Your task to perform on an android device: install app "Expedia: Hotels, Flights & Car" Image 0: 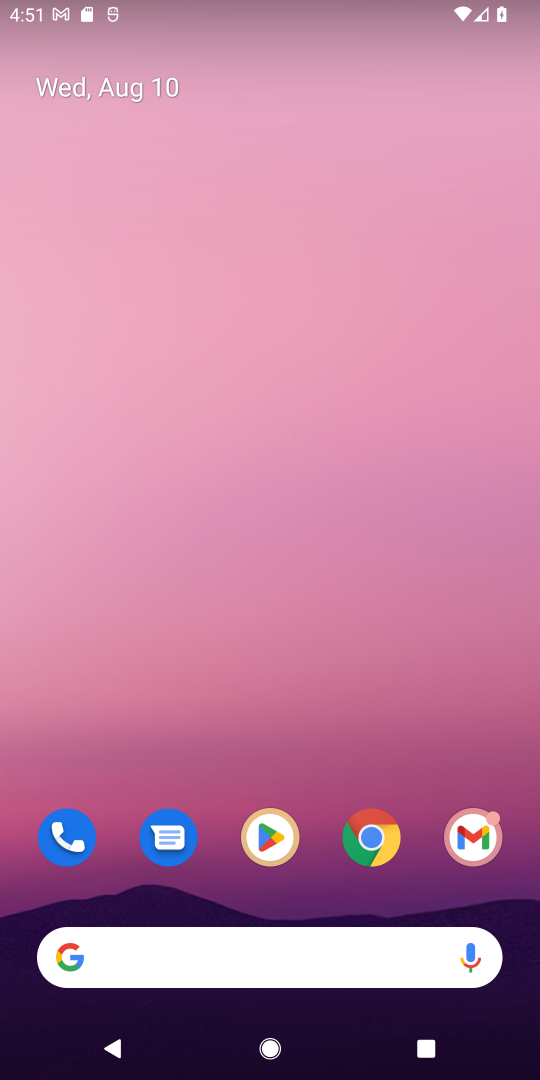
Step 0: press home button
Your task to perform on an android device: install app "Expedia: Hotels, Flights & Car" Image 1: 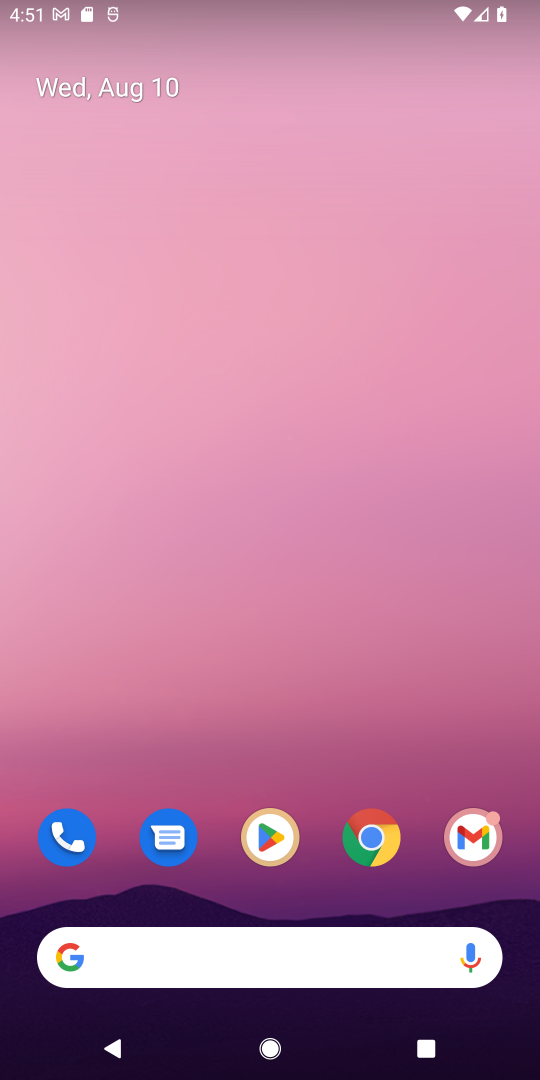
Step 1: click (261, 827)
Your task to perform on an android device: install app "Expedia: Hotels, Flights & Car" Image 2: 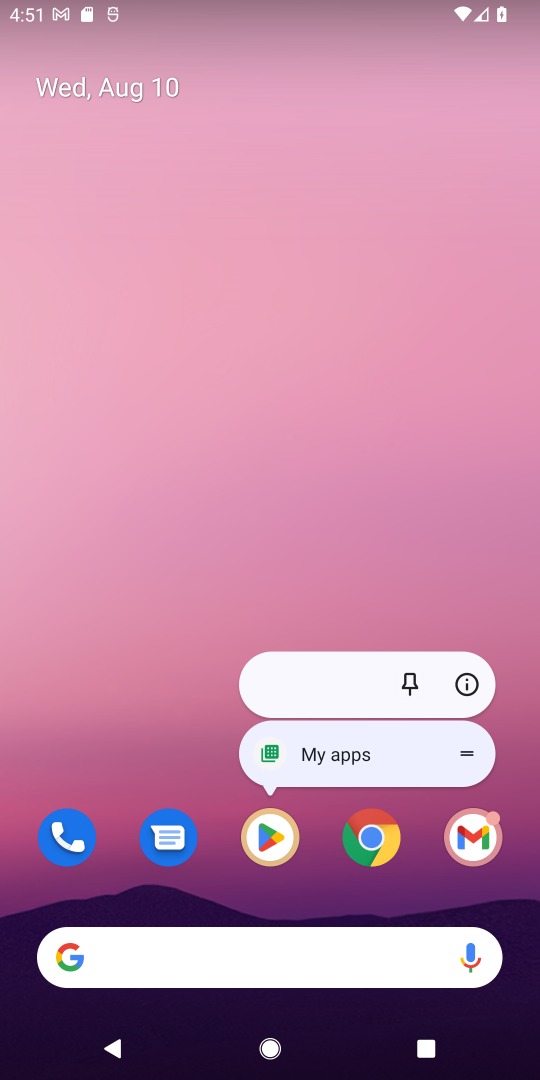
Step 2: click (269, 825)
Your task to perform on an android device: install app "Expedia: Hotels, Flights & Car" Image 3: 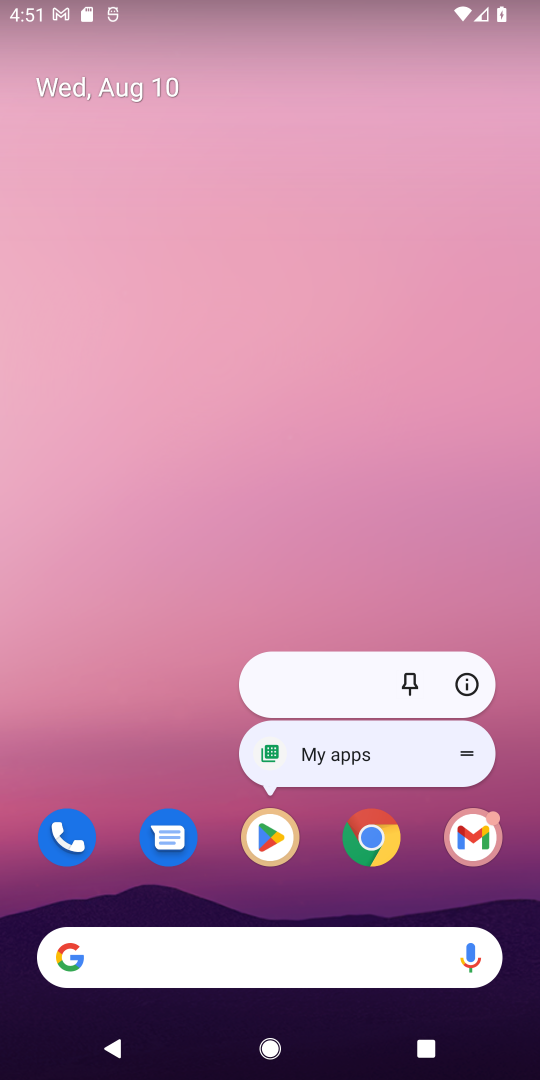
Step 3: click (269, 831)
Your task to perform on an android device: install app "Expedia: Hotels, Flights & Car" Image 4: 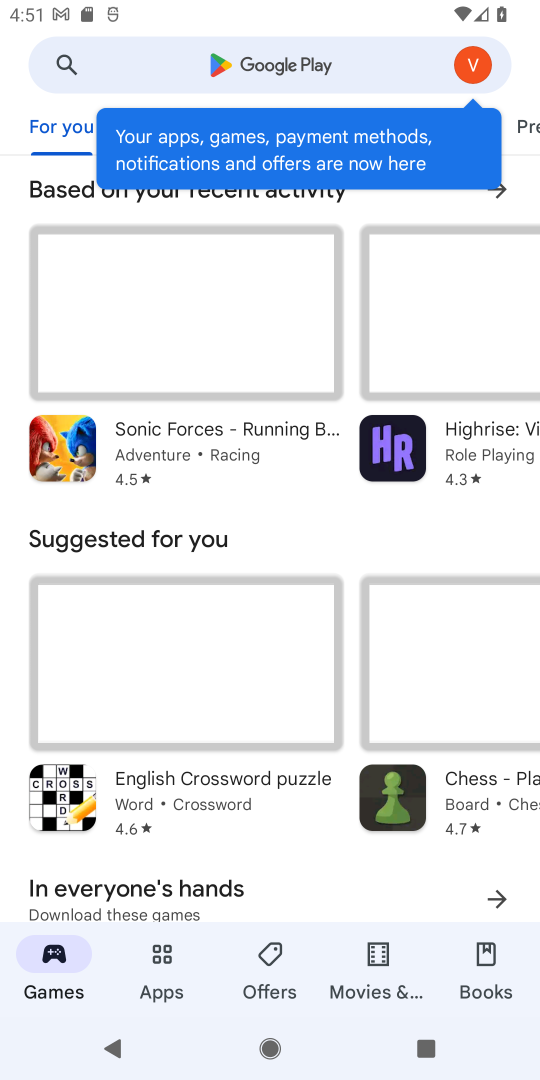
Step 4: click (300, 55)
Your task to perform on an android device: install app "Expedia: Hotels, Flights & Car" Image 5: 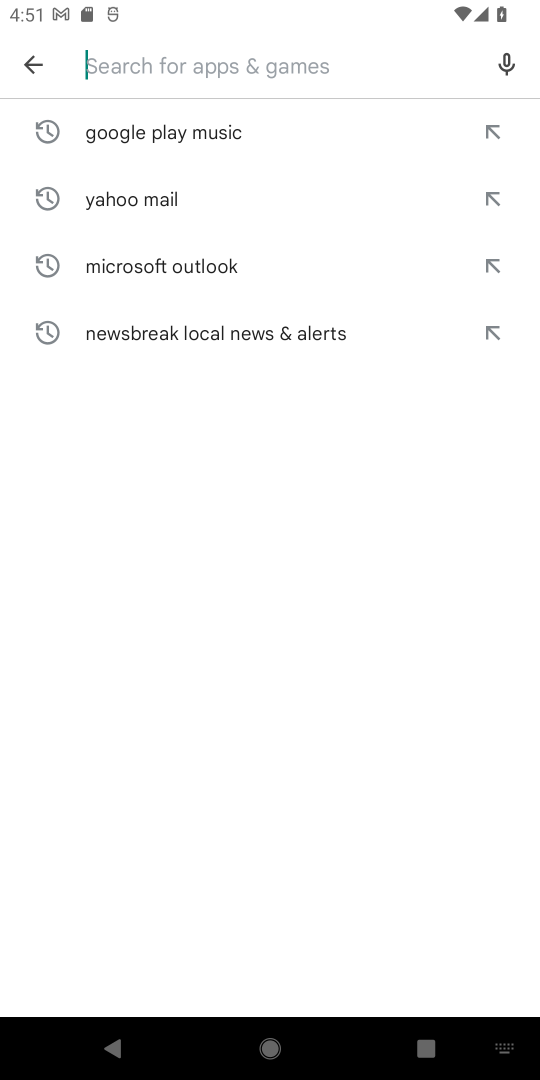
Step 5: type "Expedia: Hotels, Flights & Car"
Your task to perform on an android device: install app "Expedia: Hotels, Flights & Car" Image 6: 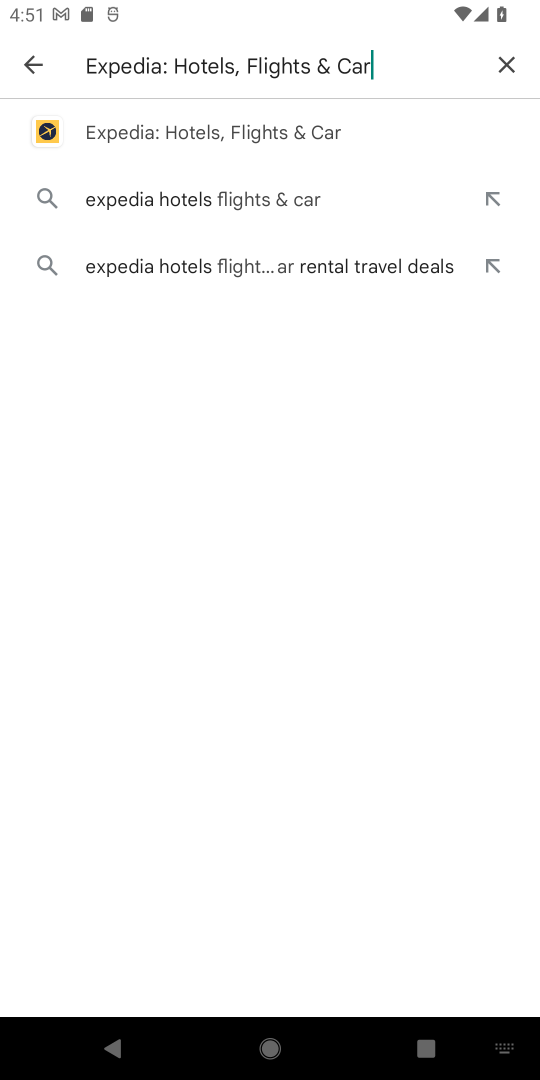
Step 6: click (215, 132)
Your task to perform on an android device: install app "Expedia: Hotels, Flights & Car" Image 7: 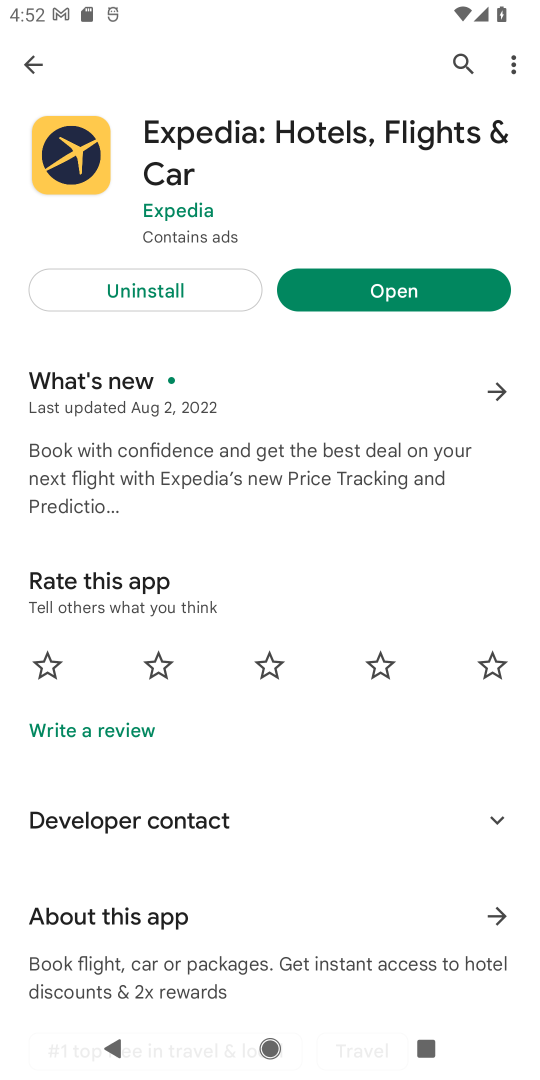
Step 7: task complete